Your task to perform on an android device: Open calendar and show me the fourth week of next month Image 0: 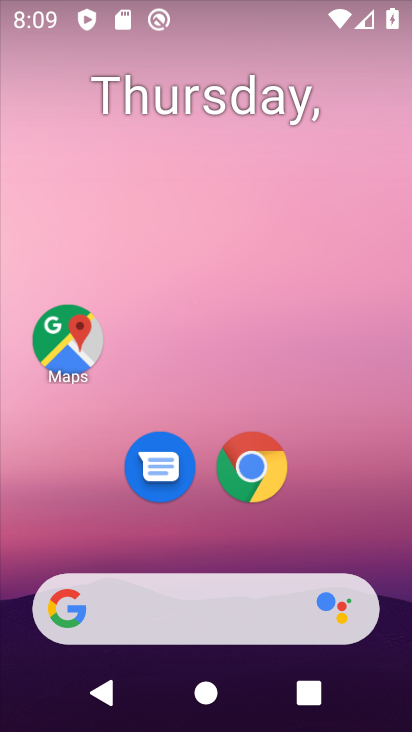
Step 0: drag from (154, 551) to (251, 90)
Your task to perform on an android device: Open calendar and show me the fourth week of next month Image 1: 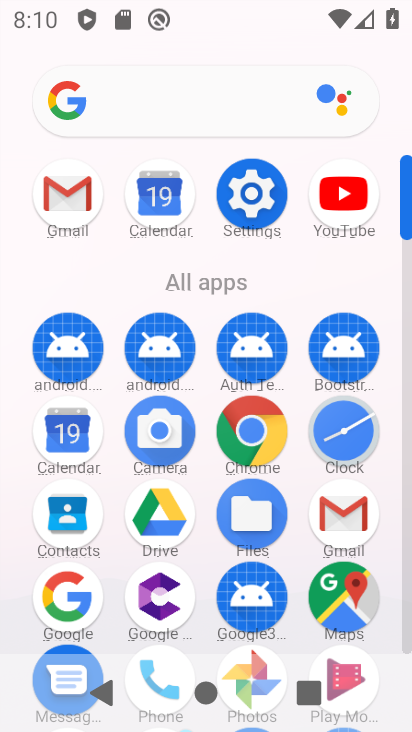
Step 1: click (55, 434)
Your task to perform on an android device: Open calendar and show me the fourth week of next month Image 2: 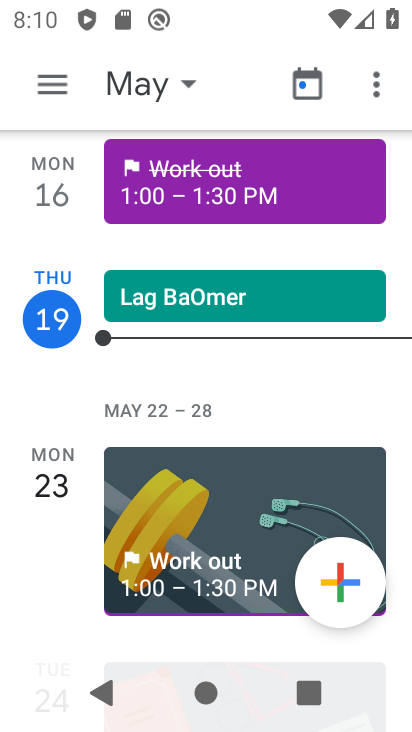
Step 2: click (179, 74)
Your task to perform on an android device: Open calendar and show me the fourth week of next month Image 3: 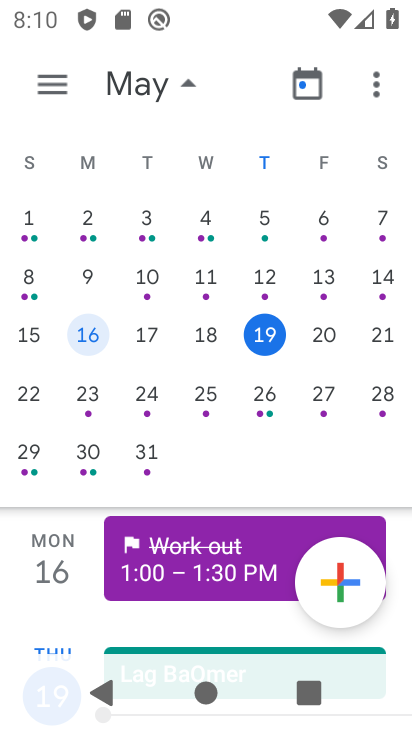
Step 3: drag from (361, 299) to (0, 276)
Your task to perform on an android device: Open calendar and show me the fourth week of next month Image 4: 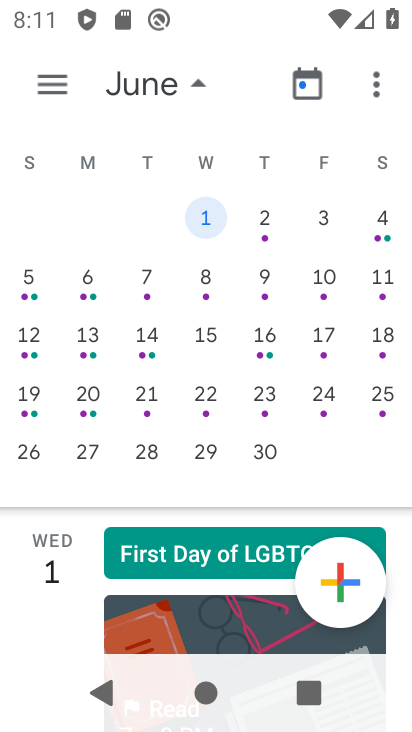
Step 4: click (95, 397)
Your task to perform on an android device: Open calendar and show me the fourth week of next month Image 5: 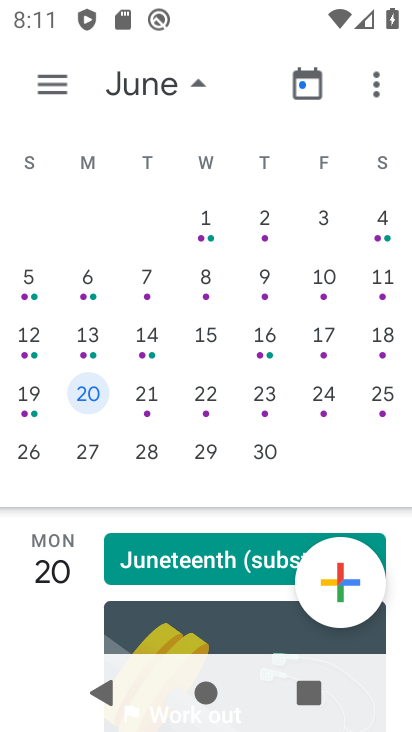
Step 5: task complete